Your task to perform on an android device: Clear the cart on newegg.com. Search for alienware area 51 on newegg.com, select the first entry, add it to the cart, then select checkout. Image 0: 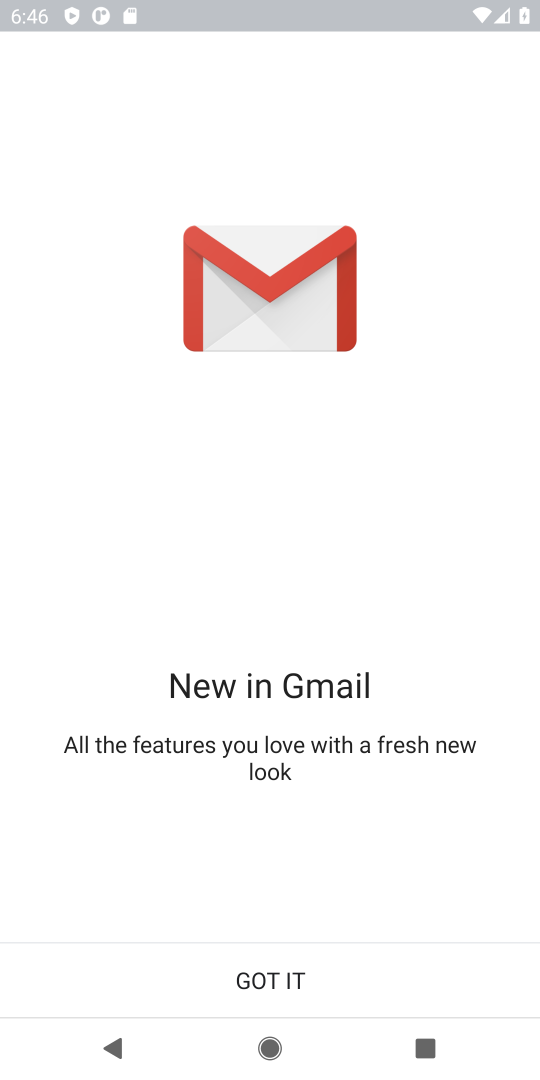
Step 0: press home button
Your task to perform on an android device: Clear the cart on newegg.com. Search for alienware area 51 on newegg.com, select the first entry, add it to the cart, then select checkout. Image 1: 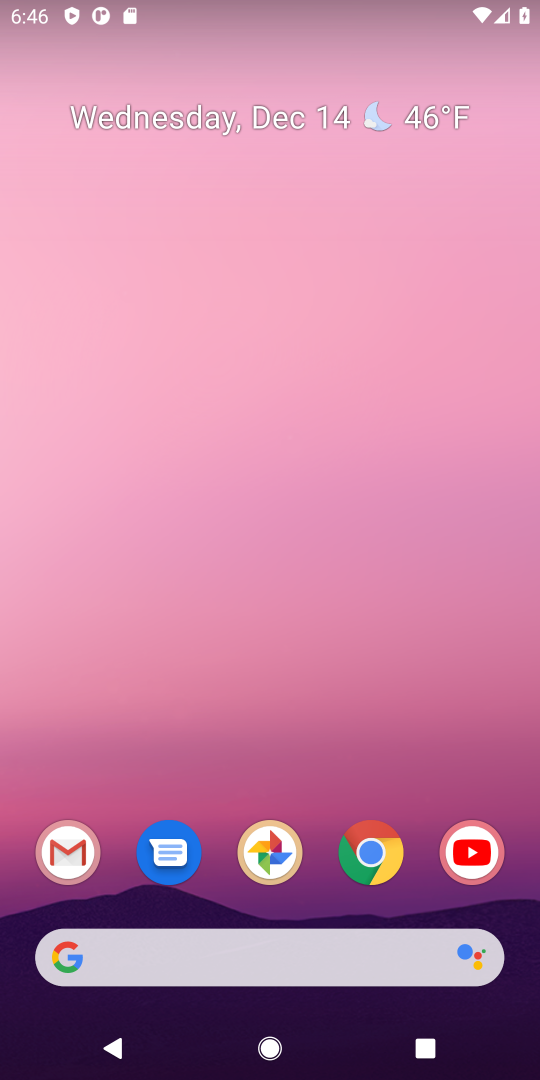
Step 1: click (381, 843)
Your task to perform on an android device: Clear the cart on newegg.com. Search for alienware area 51 on newegg.com, select the first entry, add it to the cart, then select checkout. Image 2: 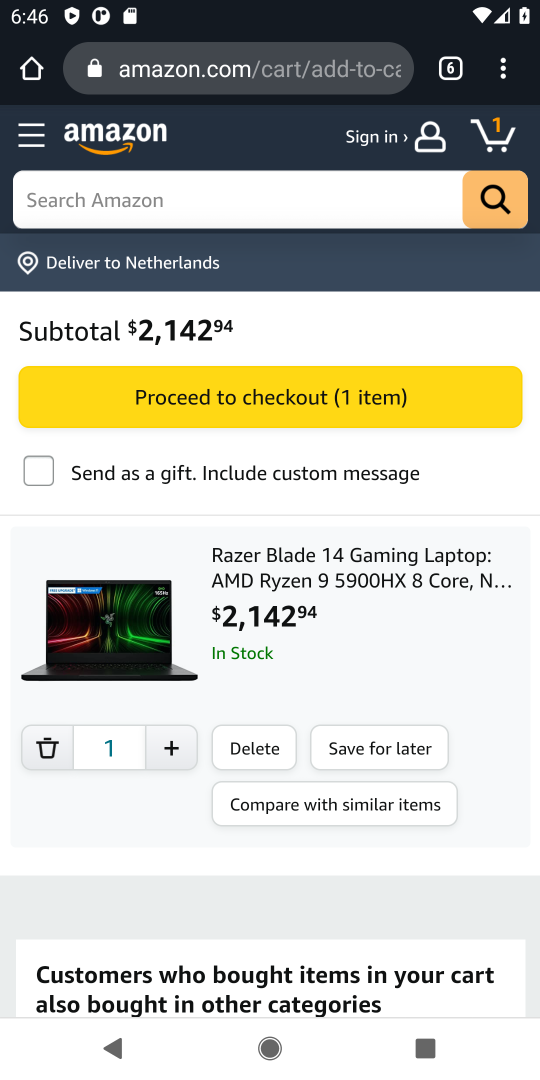
Step 2: click (446, 66)
Your task to perform on an android device: Clear the cart on newegg.com. Search for alienware area 51 on newegg.com, select the first entry, add it to the cart, then select checkout. Image 3: 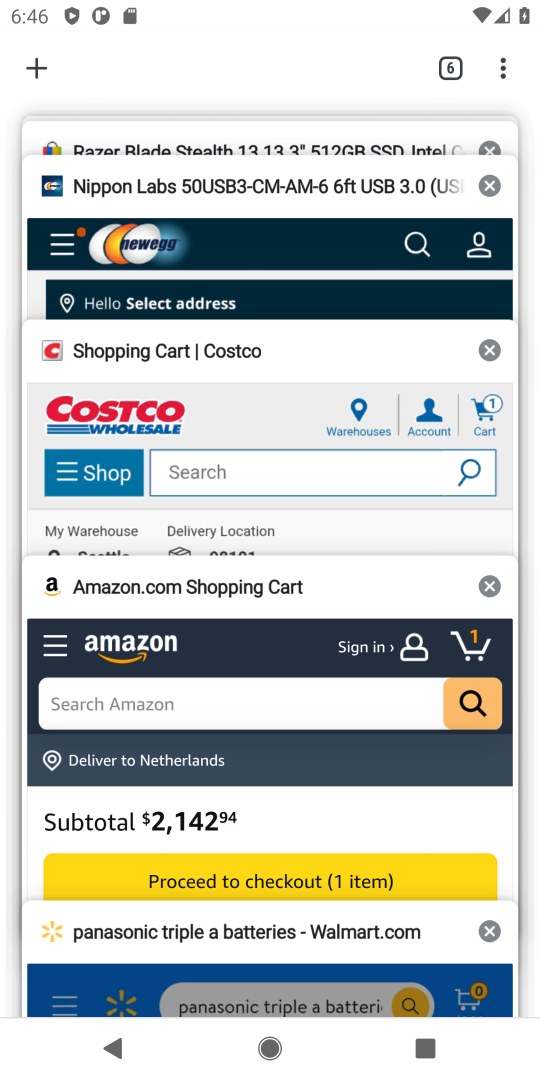
Step 3: click (227, 204)
Your task to perform on an android device: Clear the cart on newegg.com. Search for alienware area 51 on newegg.com, select the first entry, add it to the cart, then select checkout. Image 4: 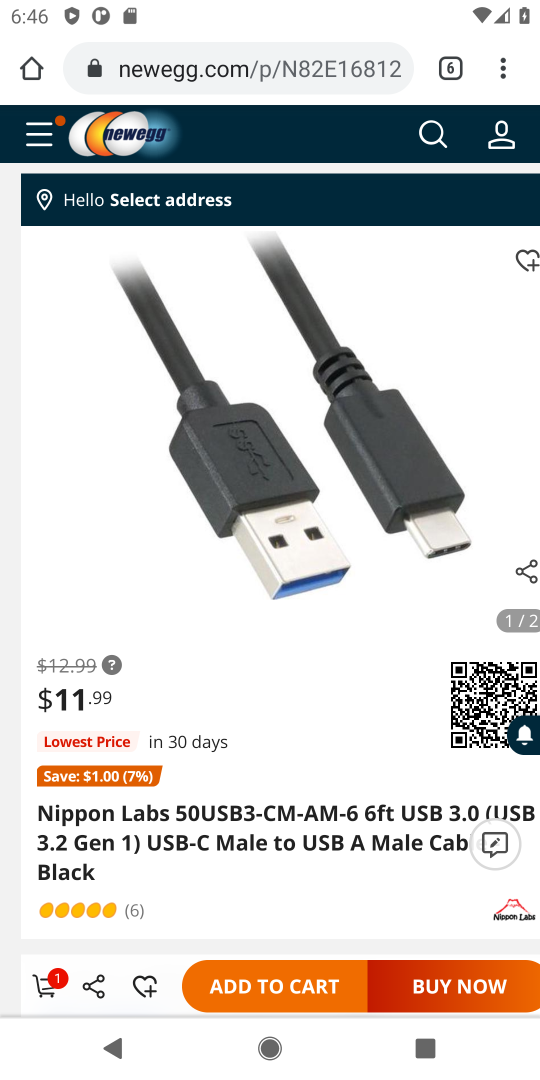
Step 4: click (30, 984)
Your task to perform on an android device: Clear the cart on newegg.com. Search for alienware area 51 on newegg.com, select the first entry, add it to the cart, then select checkout. Image 5: 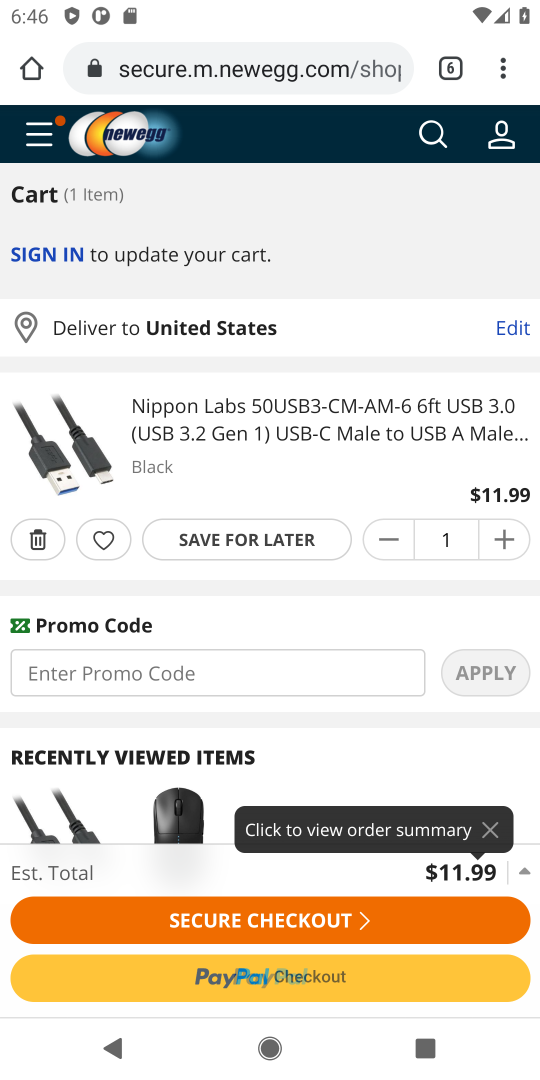
Step 5: click (36, 546)
Your task to perform on an android device: Clear the cart on newegg.com. Search for alienware area 51 on newegg.com, select the first entry, add it to the cart, then select checkout. Image 6: 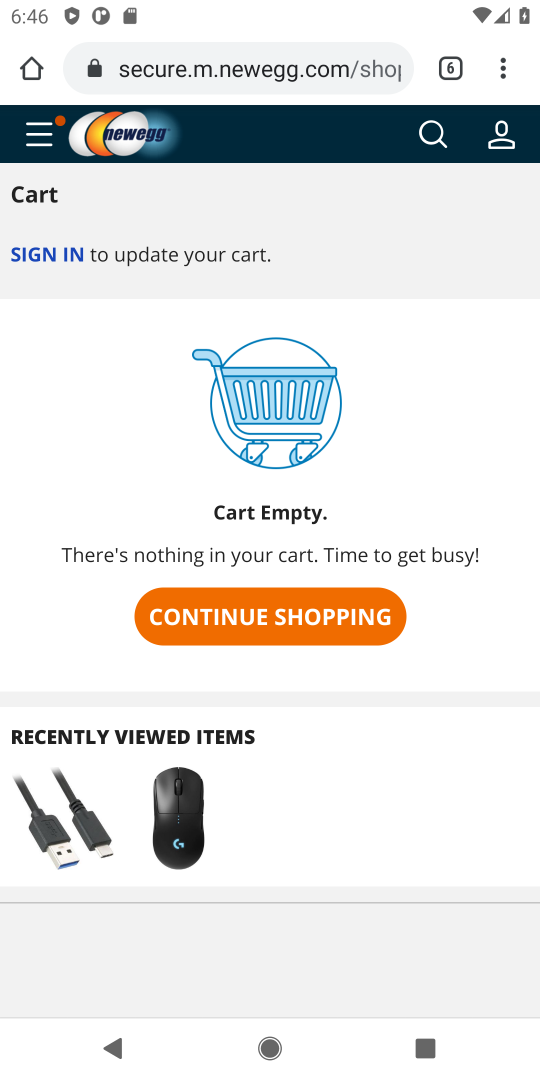
Step 6: click (428, 137)
Your task to perform on an android device: Clear the cart on newegg.com. Search for alienware area 51 on newegg.com, select the first entry, add it to the cart, then select checkout. Image 7: 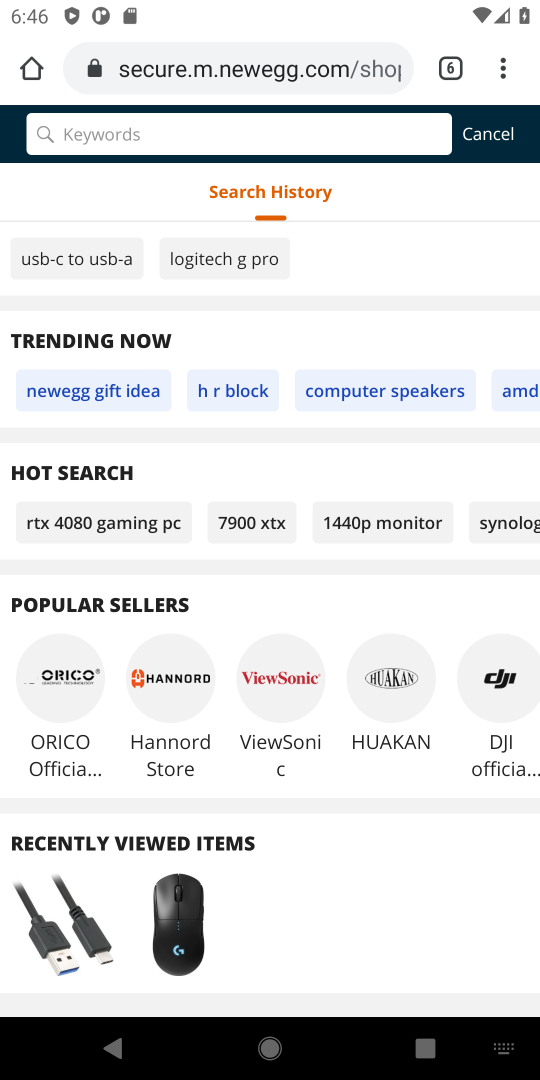
Step 7: type "alienware area 51 "
Your task to perform on an android device: Clear the cart on newegg.com. Search for alienware area 51 on newegg.com, select the first entry, add it to the cart, then select checkout. Image 8: 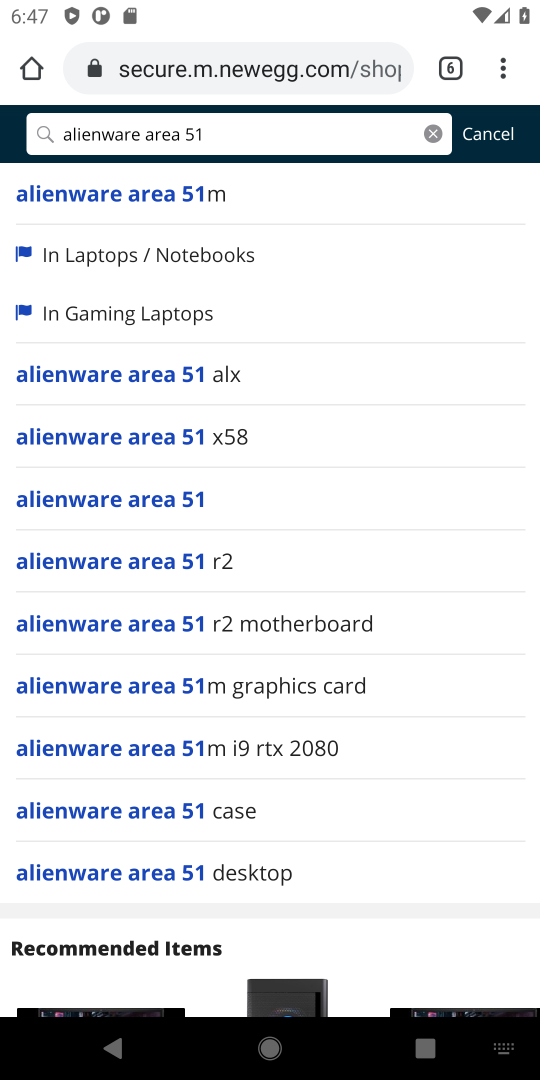
Step 8: click (150, 180)
Your task to perform on an android device: Clear the cart on newegg.com. Search for alienware area 51 on newegg.com, select the first entry, add it to the cart, then select checkout. Image 9: 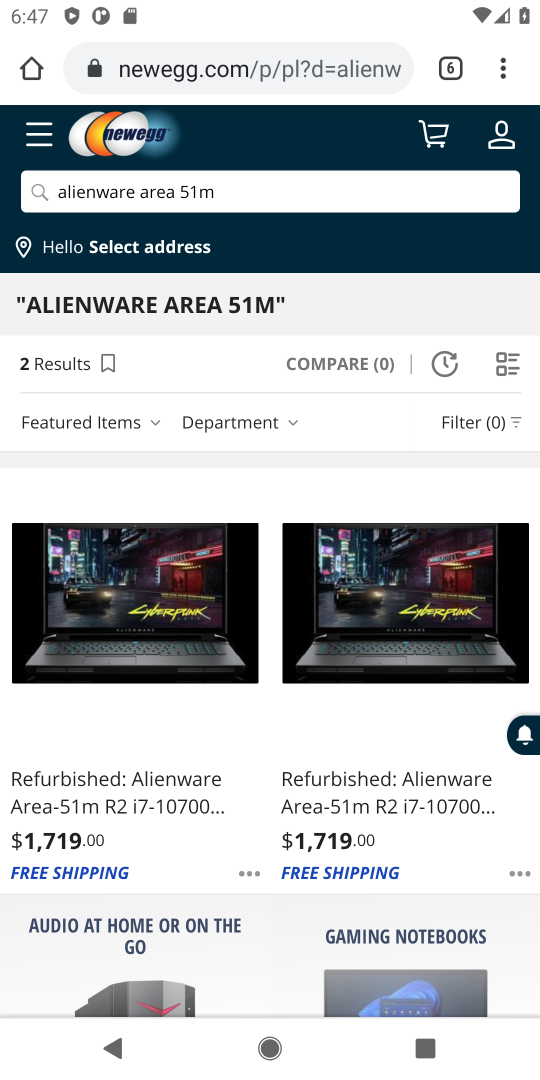
Step 9: click (144, 800)
Your task to perform on an android device: Clear the cart on newegg.com. Search for alienware area 51 on newegg.com, select the first entry, add it to the cart, then select checkout. Image 10: 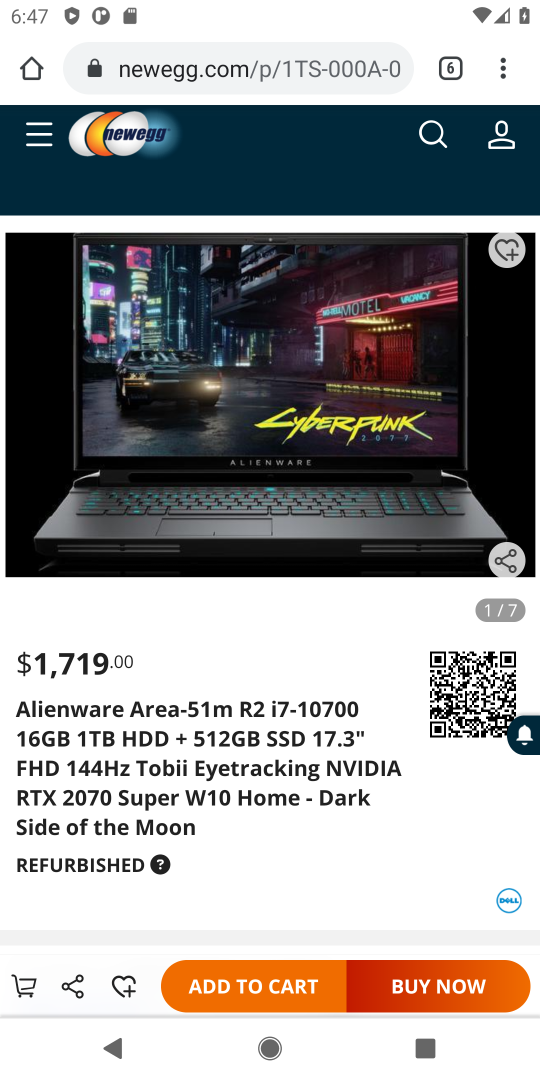
Step 10: click (250, 983)
Your task to perform on an android device: Clear the cart on newegg.com. Search for alienware area 51 on newegg.com, select the first entry, add it to the cart, then select checkout. Image 11: 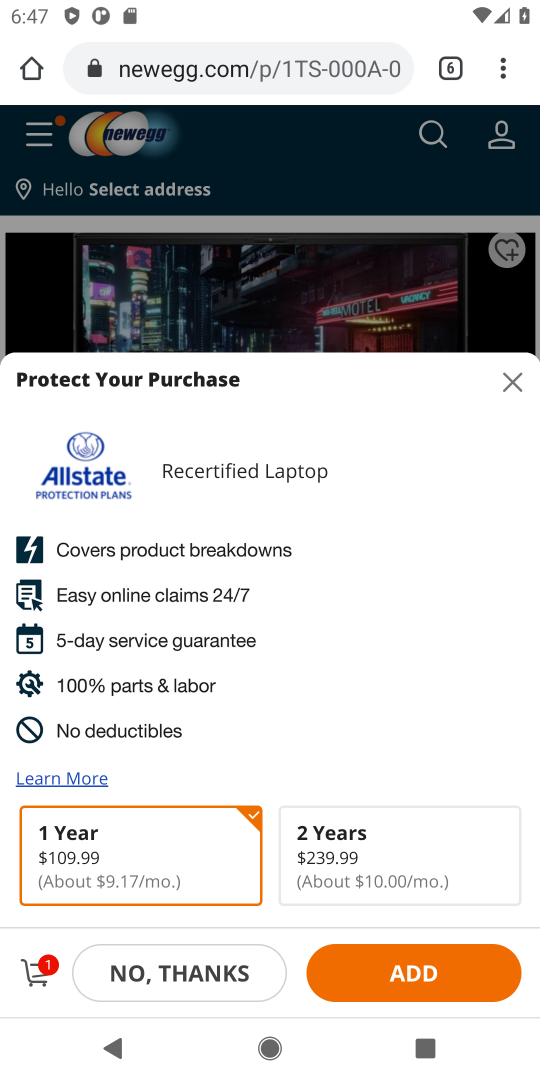
Step 11: task complete